Your task to perform on an android device: turn off notifications settings in the gmail app Image 0: 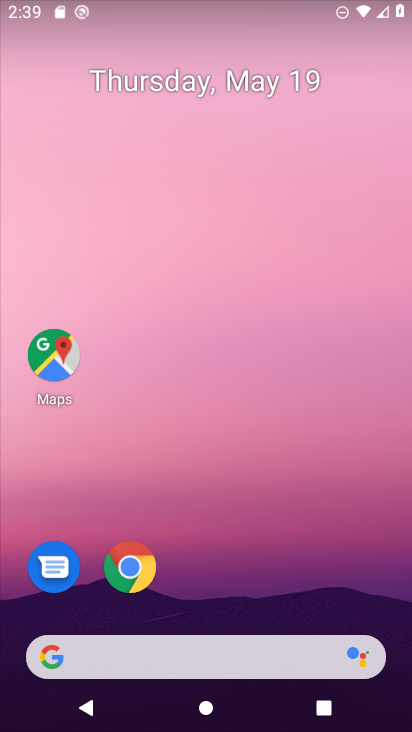
Step 0: drag from (264, 551) to (273, 109)
Your task to perform on an android device: turn off notifications settings in the gmail app Image 1: 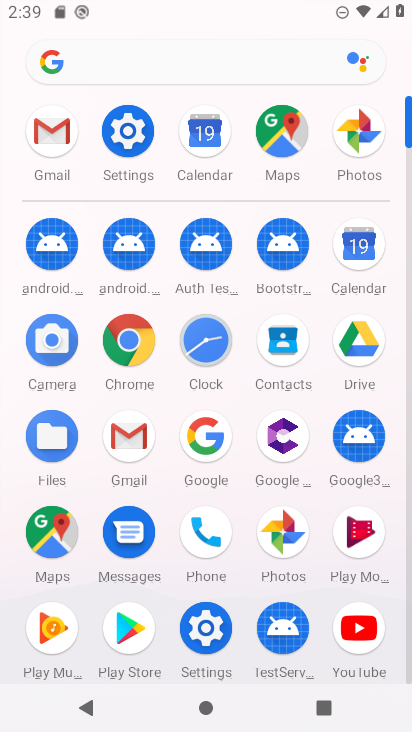
Step 1: click (53, 128)
Your task to perform on an android device: turn off notifications settings in the gmail app Image 2: 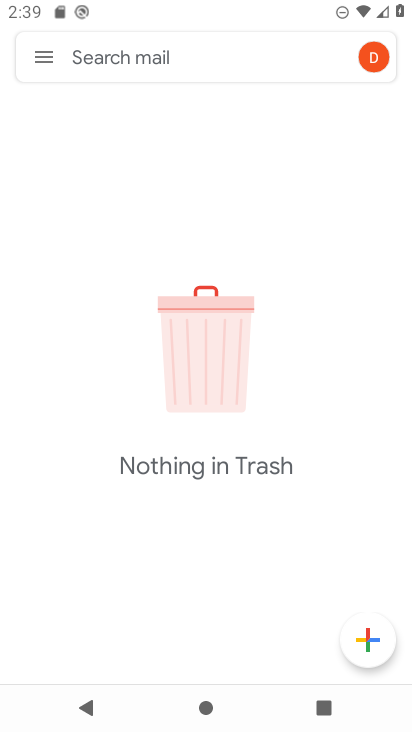
Step 2: click (42, 51)
Your task to perform on an android device: turn off notifications settings in the gmail app Image 3: 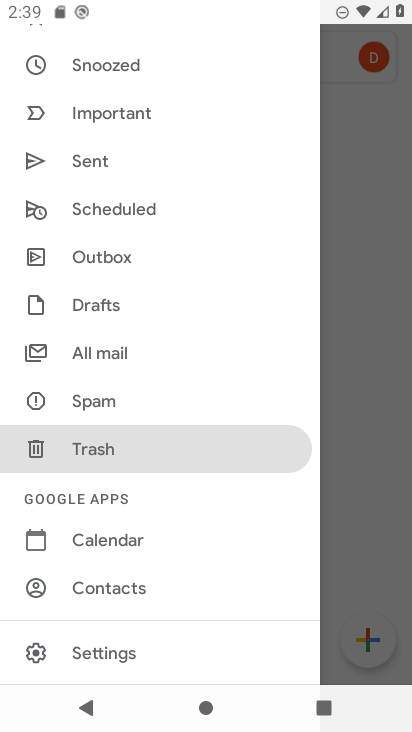
Step 3: click (118, 654)
Your task to perform on an android device: turn off notifications settings in the gmail app Image 4: 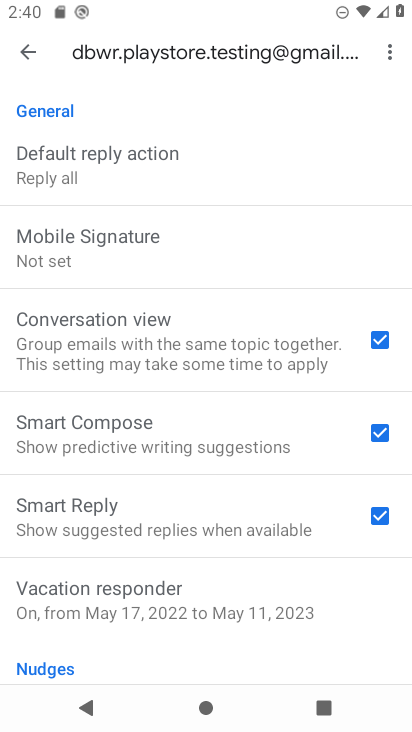
Step 4: drag from (206, 217) to (226, 539)
Your task to perform on an android device: turn off notifications settings in the gmail app Image 5: 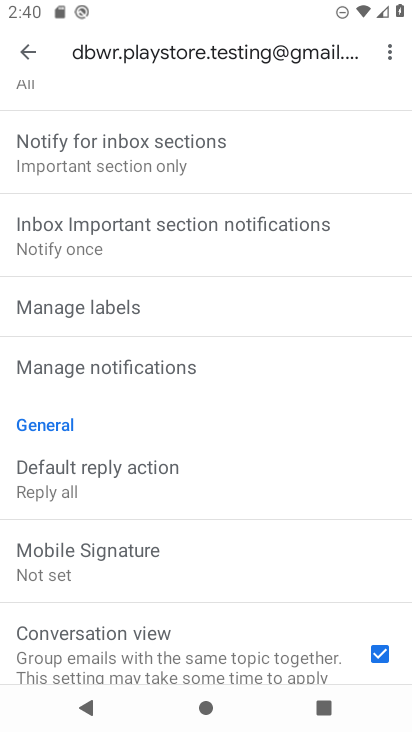
Step 5: click (210, 355)
Your task to perform on an android device: turn off notifications settings in the gmail app Image 6: 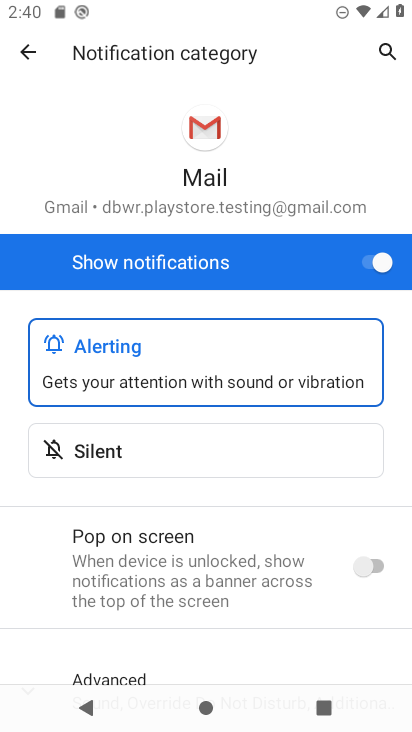
Step 6: click (371, 269)
Your task to perform on an android device: turn off notifications settings in the gmail app Image 7: 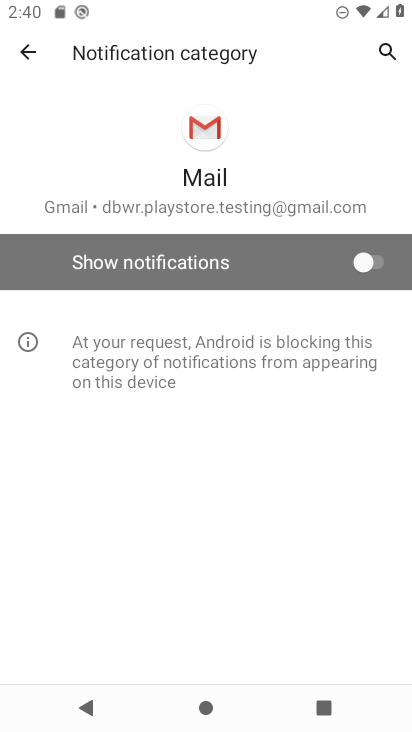
Step 7: task complete